Your task to perform on an android device: Go to battery settings Image 0: 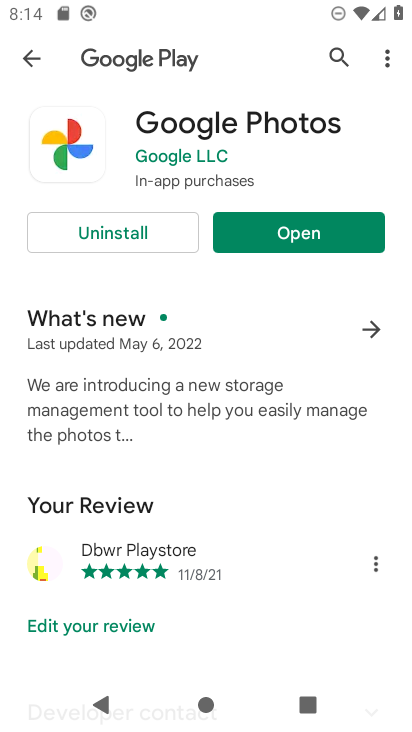
Step 0: press home button
Your task to perform on an android device: Go to battery settings Image 1: 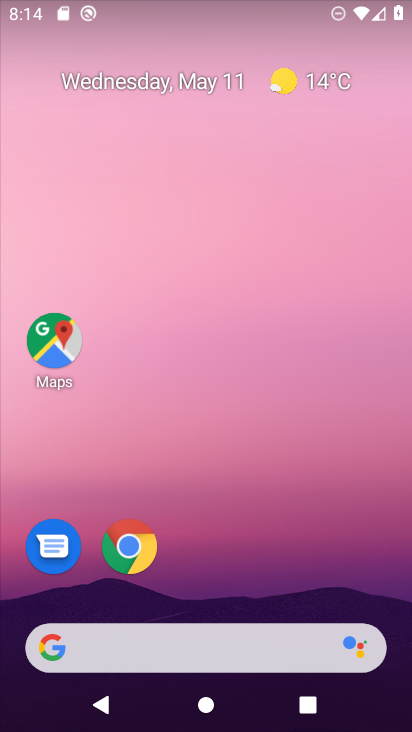
Step 1: drag from (237, 649) to (168, 144)
Your task to perform on an android device: Go to battery settings Image 2: 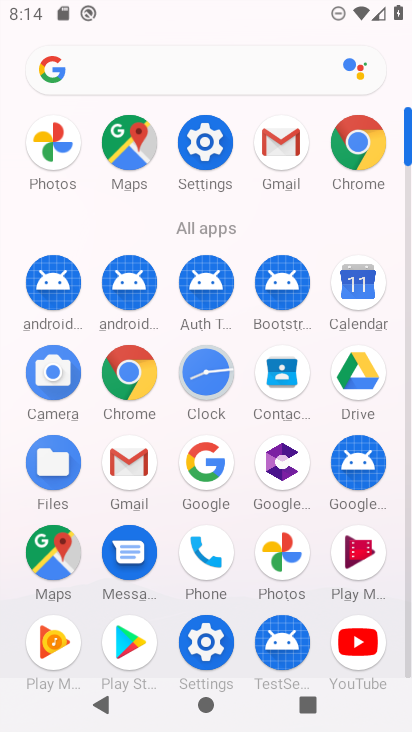
Step 2: click (210, 137)
Your task to perform on an android device: Go to battery settings Image 3: 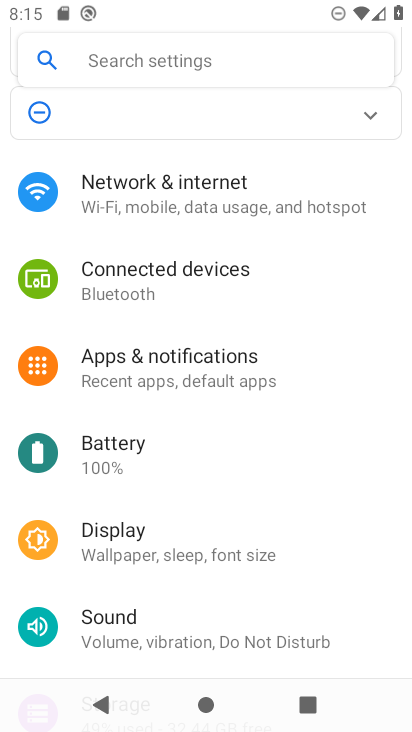
Step 3: click (141, 442)
Your task to perform on an android device: Go to battery settings Image 4: 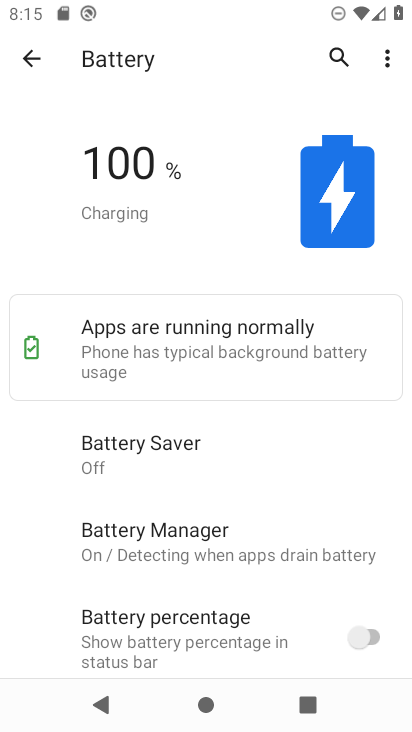
Step 4: task complete